Your task to perform on an android device: Go to settings Image 0: 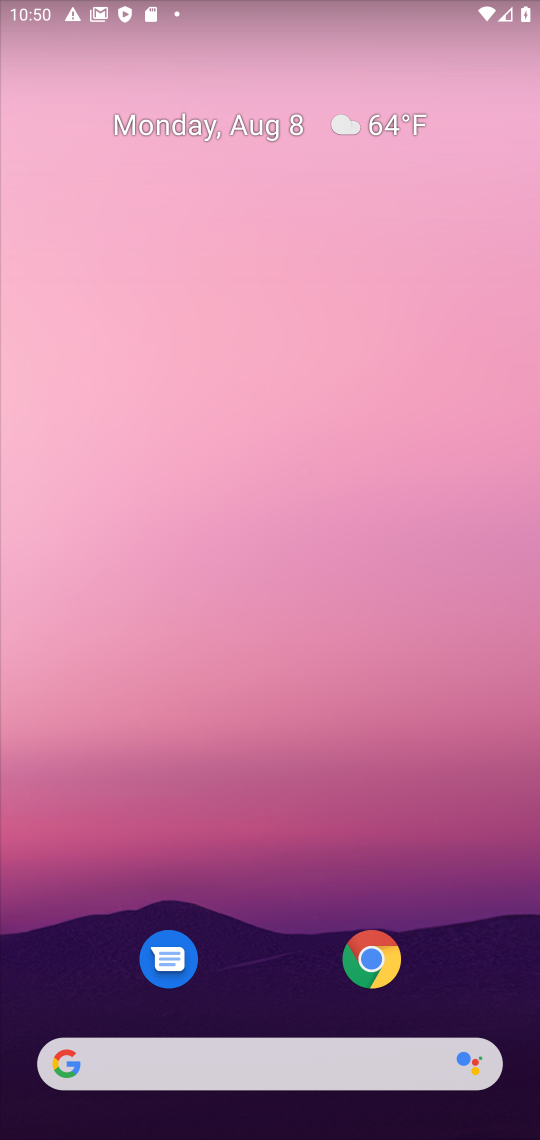
Step 0: drag from (310, 976) to (203, 301)
Your task to perform on an android device: Go to settings Image 1: 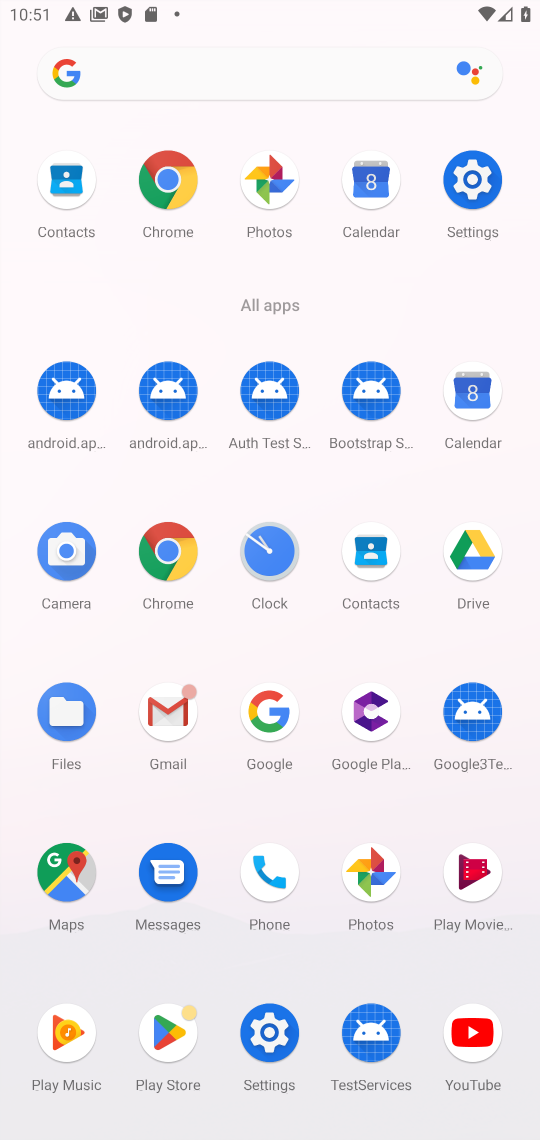
Step 1: click (475, 177)
Your task to perform on an android device: Go to settings Image 2: 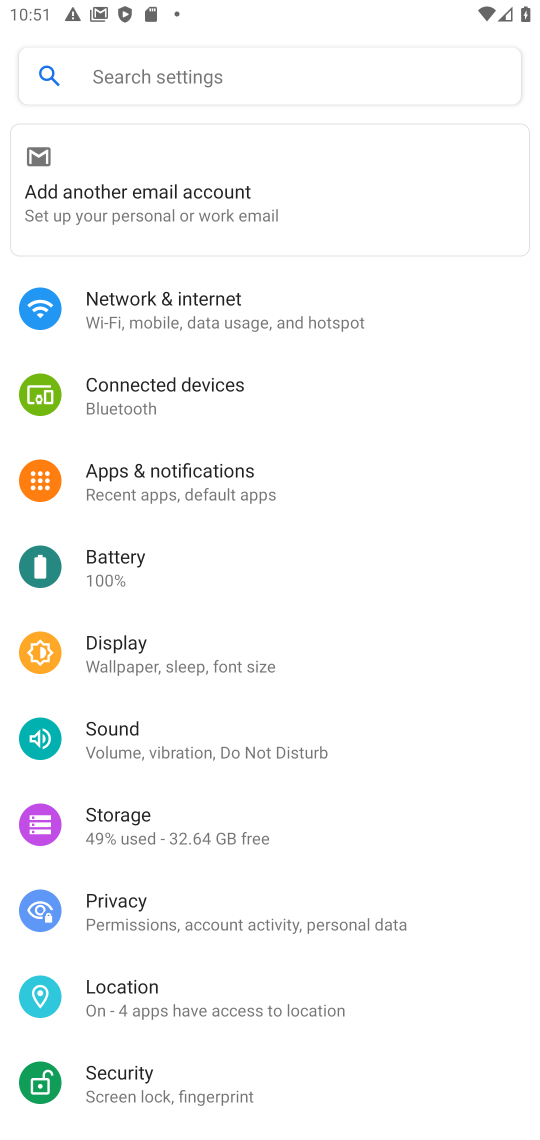
Step 2: task complete